Your task to perform on an android device: Do I have any events tomorrow? Image 0: 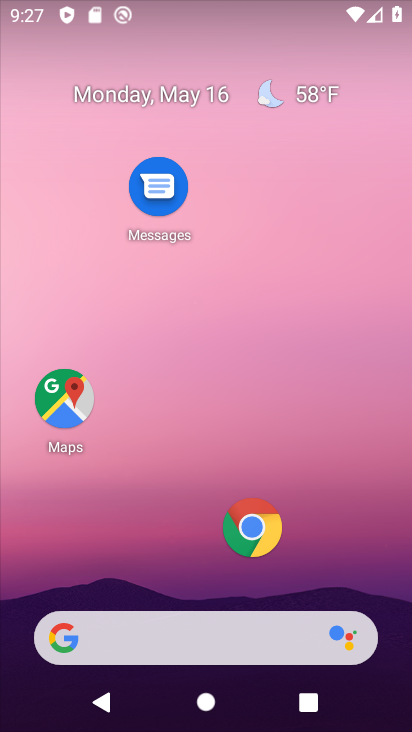
Step 0: drag from (178, 504) to (252, 64)
Your task to perform on an android device: Do I have any events tomorrow? Image 1: 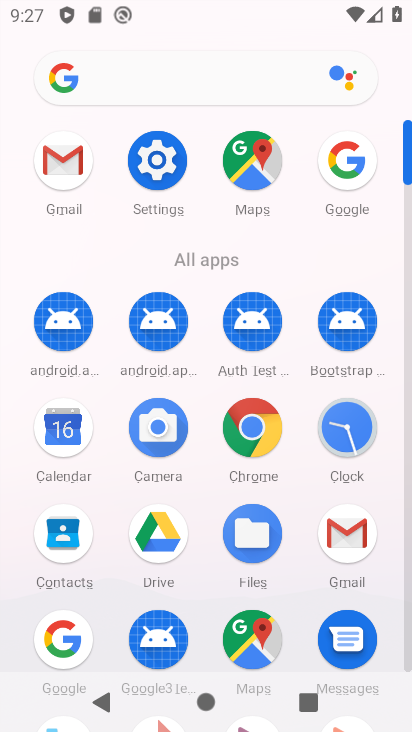
Step 1: click (64, 426)
Your task to perform on an android device: Do I have any events tomorrow? Image 2: 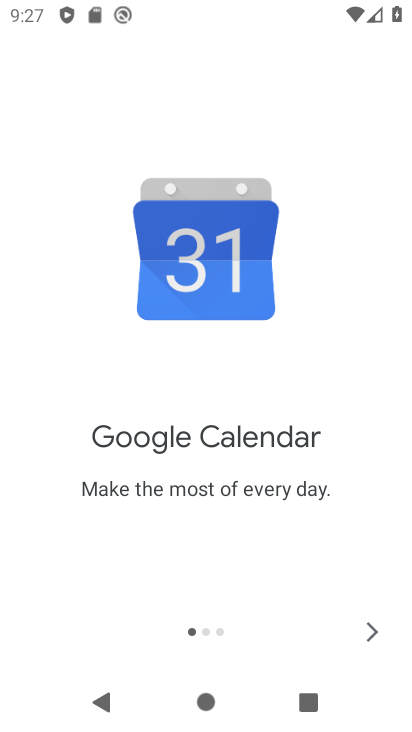
Step 2: click (368, 626)
Your task to perform on an android device: Do I have any events tomorrow? Image 3: 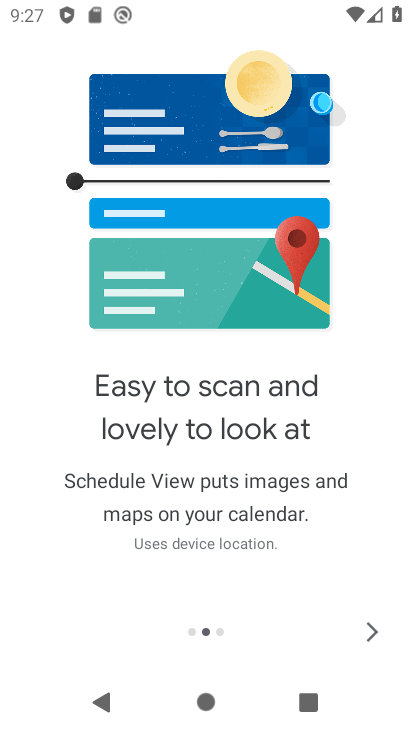
Step 3: click (368, 626)
Your task to perform on an android device: Do I have any events tomorrow? Image 4: 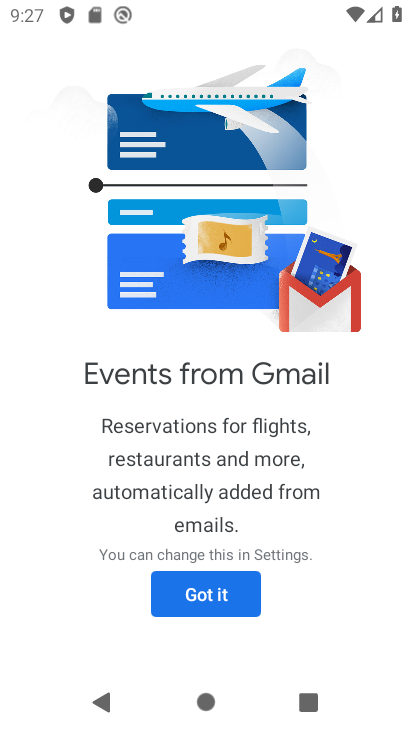
Step 4: click (220, 597)
Your task to perform on an android device: Do I have any events tomorrow? Image 5: 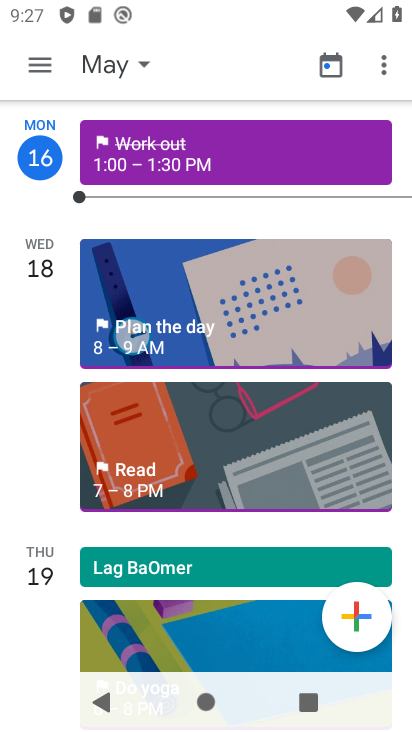
Step 5: click (133, 61)
Your task to perform on an android device: Do I have any events tomorrow? Image 6: 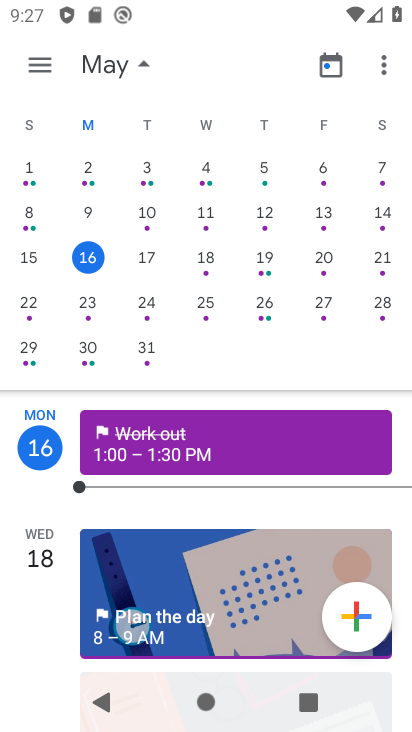
Step 6: click (145, 255)
Your task to perform on an android device: Do I have any events tomorrow? Image 7: 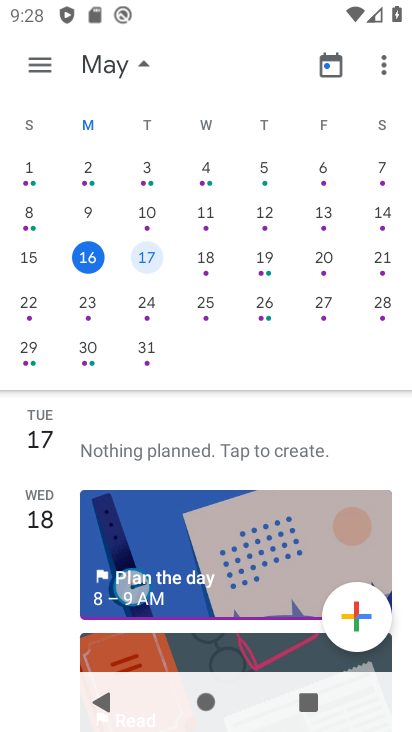
Step 7: task complete